Your task to perform on an android device: refresh tabs in the chrome app Image 0: 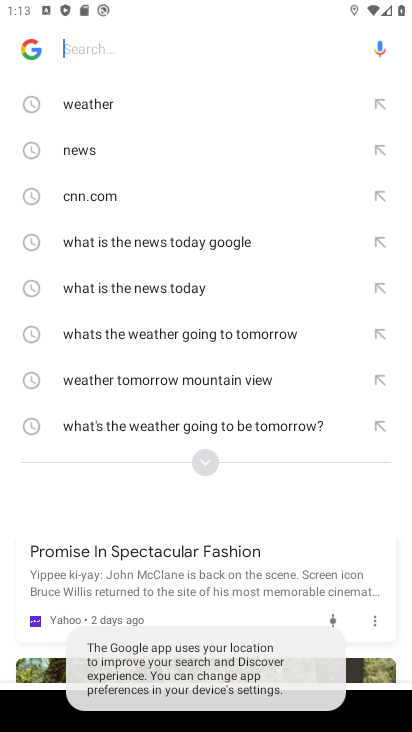
Step 0: press home button
Your task to perform on an android device: refresh tabs in the chrome app Image 1: 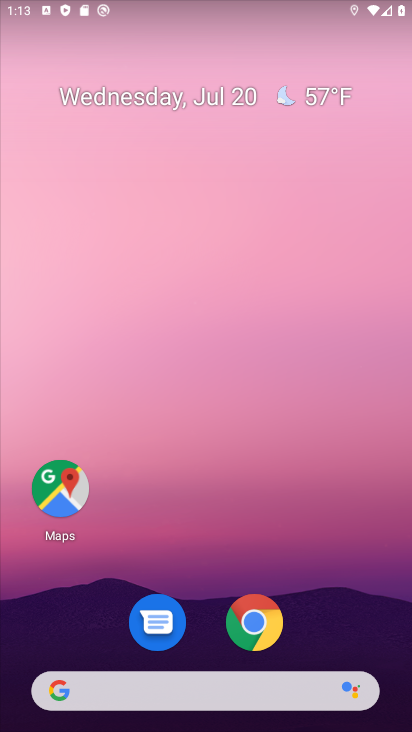
Step 1: click (252, 589)
Your task to perform on an android device: refresh tabs in the chrome app Image 2: 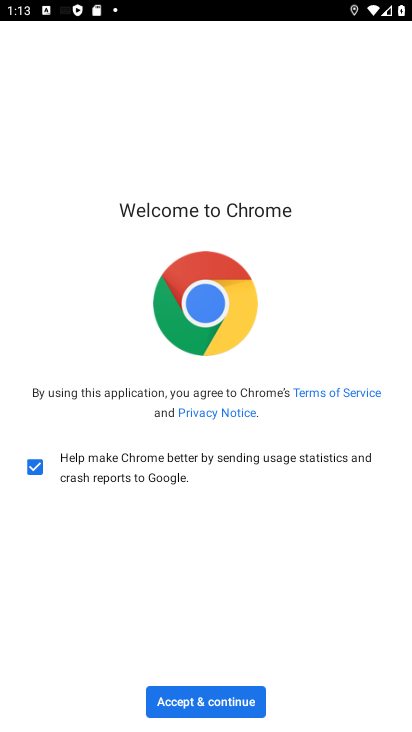
Step 2: click (211, 700)
Your task to perform on an android device: refresh tabs in the chrome app Image 3: 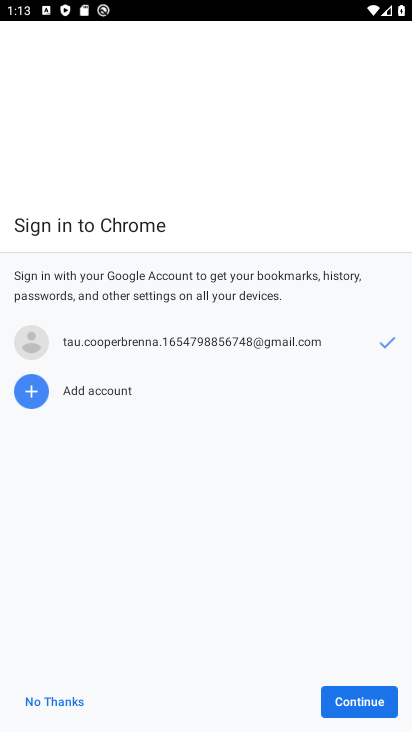
Step 3: click (329, 692)
Your task to perform on an android device: refresh tabs in the chrome app Image 4: 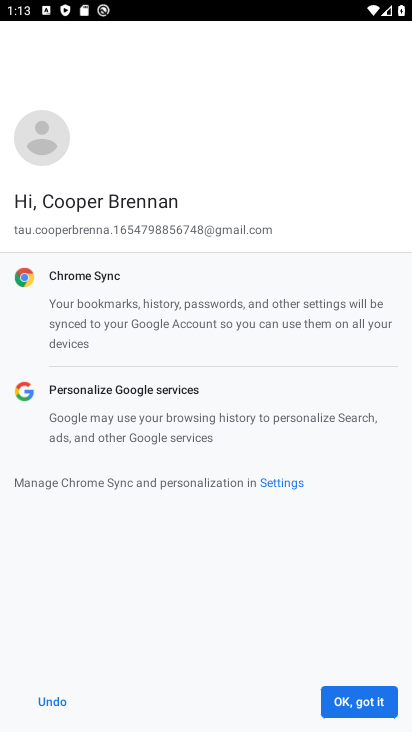
Step 4: click (337, 713)
Your task to perform on an android device: refresh tabs in the chrome app Image 5: 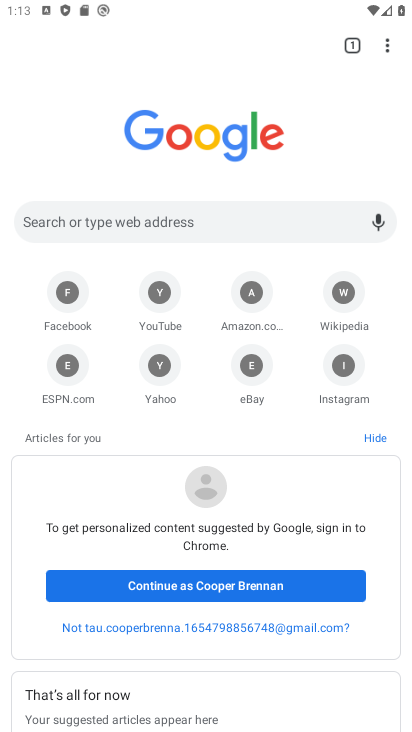
Step 5: click (386, 47)
Your task to perform on an android device: refresh tabs in the chrome app Image 6: 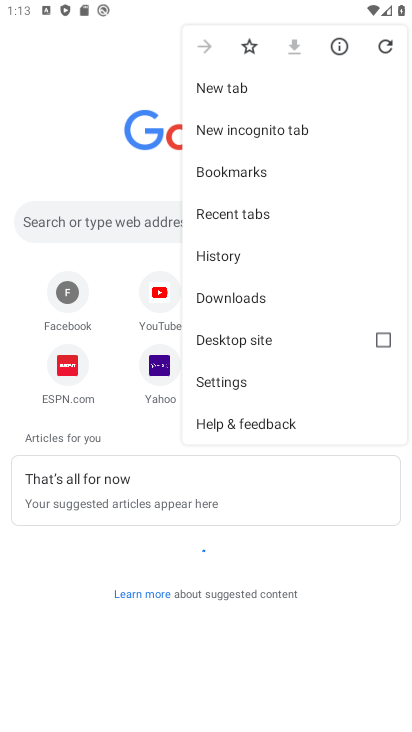
Step 6: click (388, 52)
Your task to perform on an android device: refresh tabs in the chrome app Image 7: 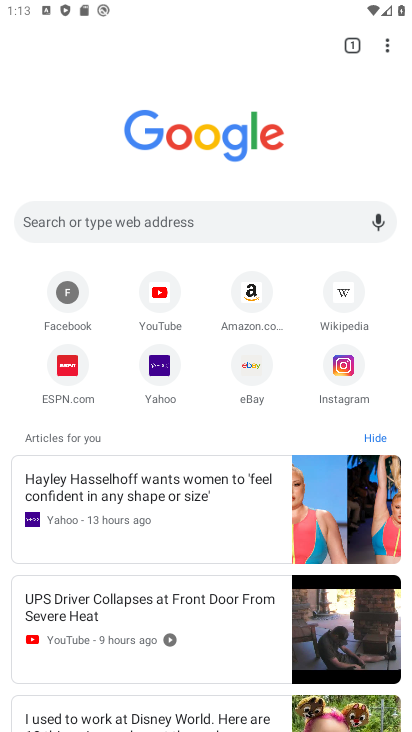
Step 7: task complete